Your task to perform on an android device: Open the phone app and click the voicemail tab. Image 0: 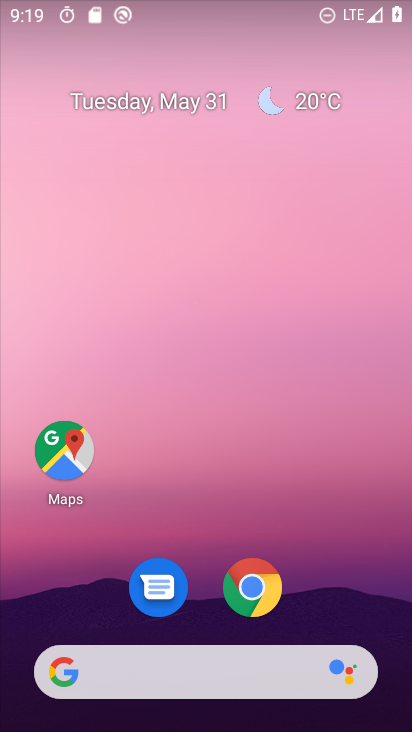
Step 0: click (68, 442)
Your task to perform on an android device: Open the phone app and click the voicemail tab. Image 1: 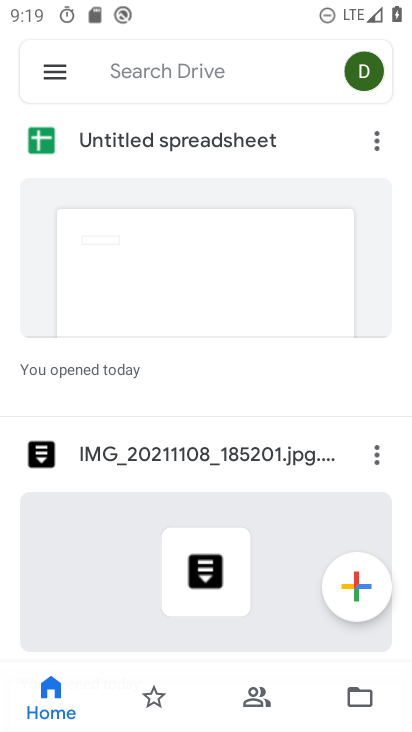
Step 1: press home button
Your task to perform on an android device: Open the phone app and click the voicemail tab. Image 2: 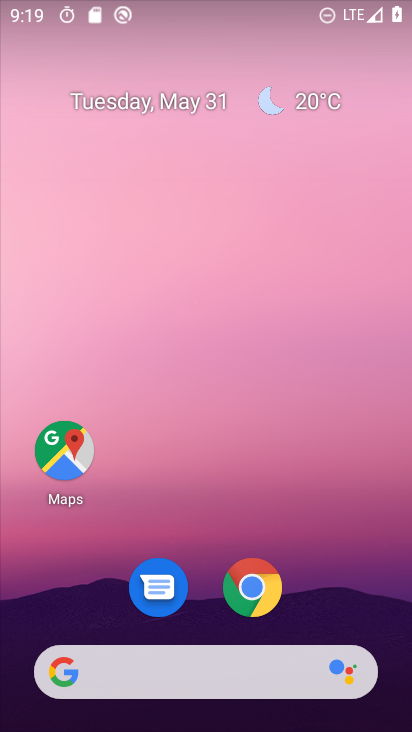
Step 2: drag from (205, 620) to (226, 51)
Your task to perform on an android device: Open the phone app and click the voicemail tab. Image 3: 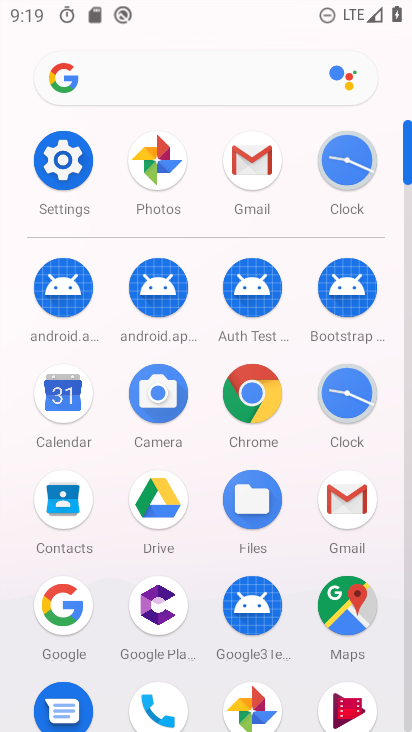
Step 3: drag from (192, 675) to (218, 239)
Your task to perform on an android device: Open the phone app and click the voicemail tab. Image 4: 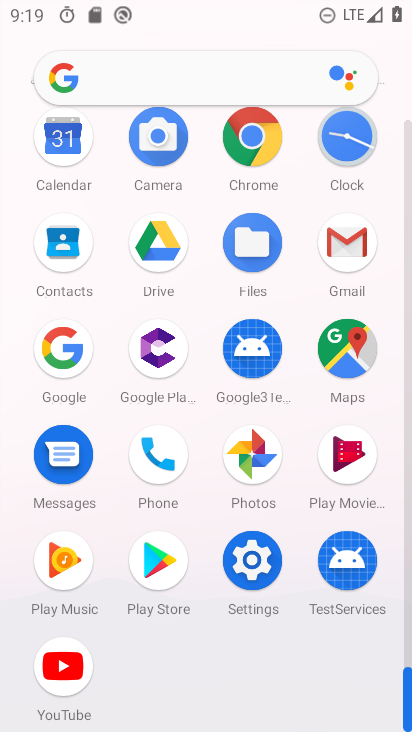
Step 4: click (155, 474)
Your task to perform on an android device: Open the phone app and click the voicemail tab. Image 5: 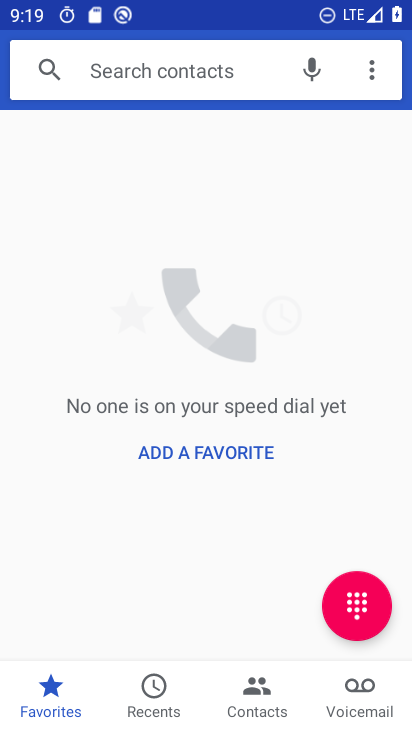
Step 5: click (364, 693)
Your task to perform on an android device: Open the phone app and click the voicemail tab. Image 6: 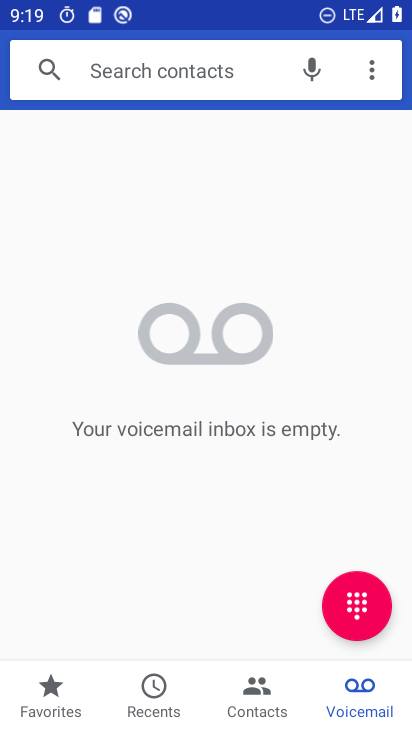
Step 6: task complete